Your task to perform on an android device: turn notification dots off Image 0: 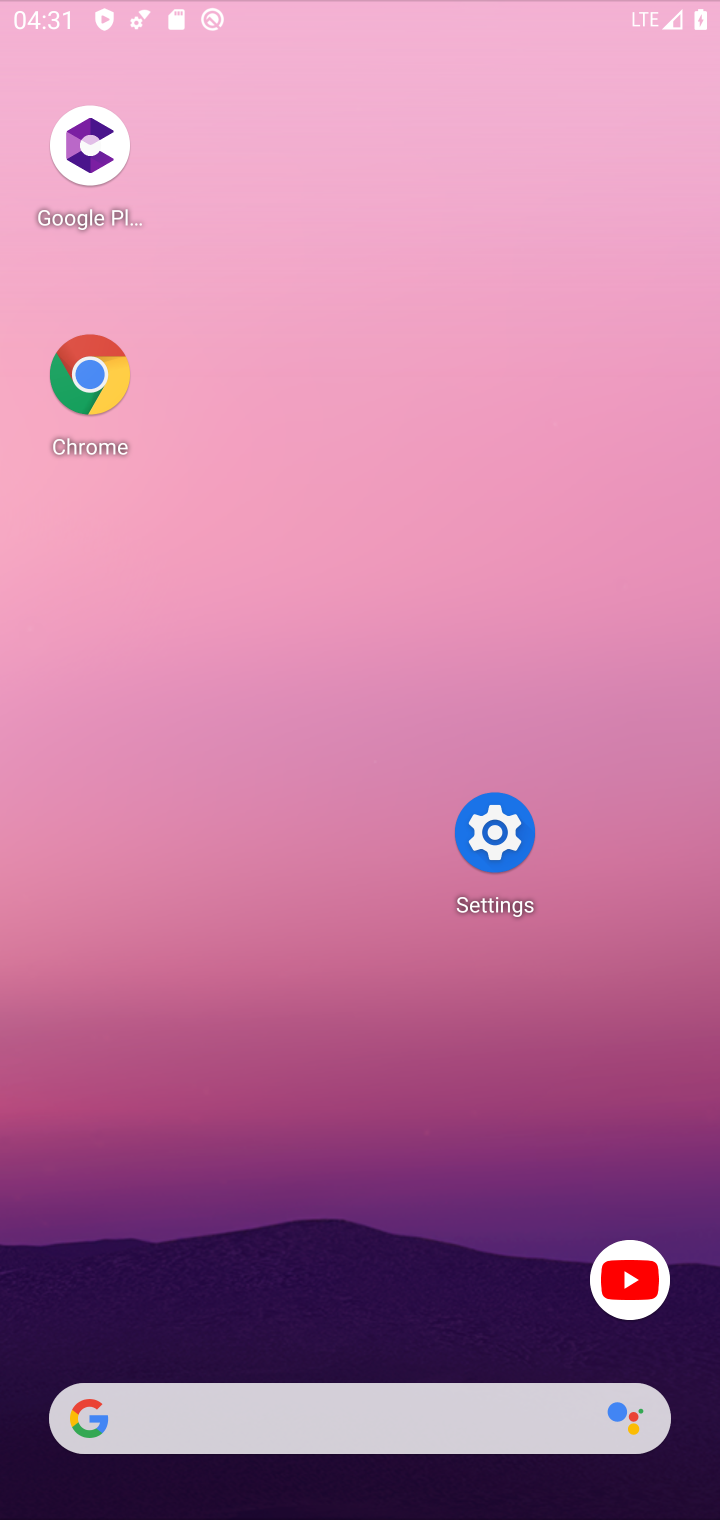
Step 0: press back button
Your task to perform on an android device: turn notification dots off Image 1: 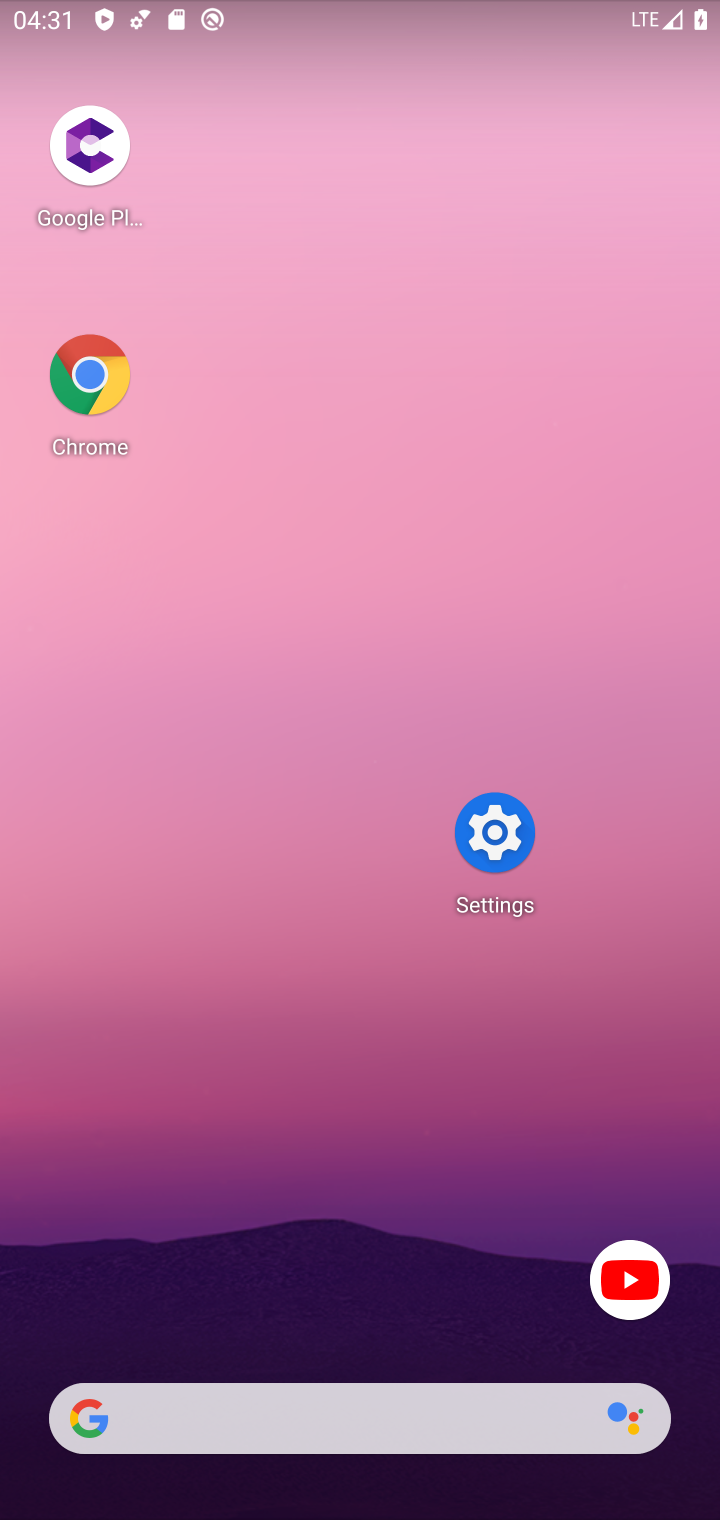
Step 1: drag from (436, 425) to (490, 566)
Your task to perform on an android device: turn notification dots off Image 2: 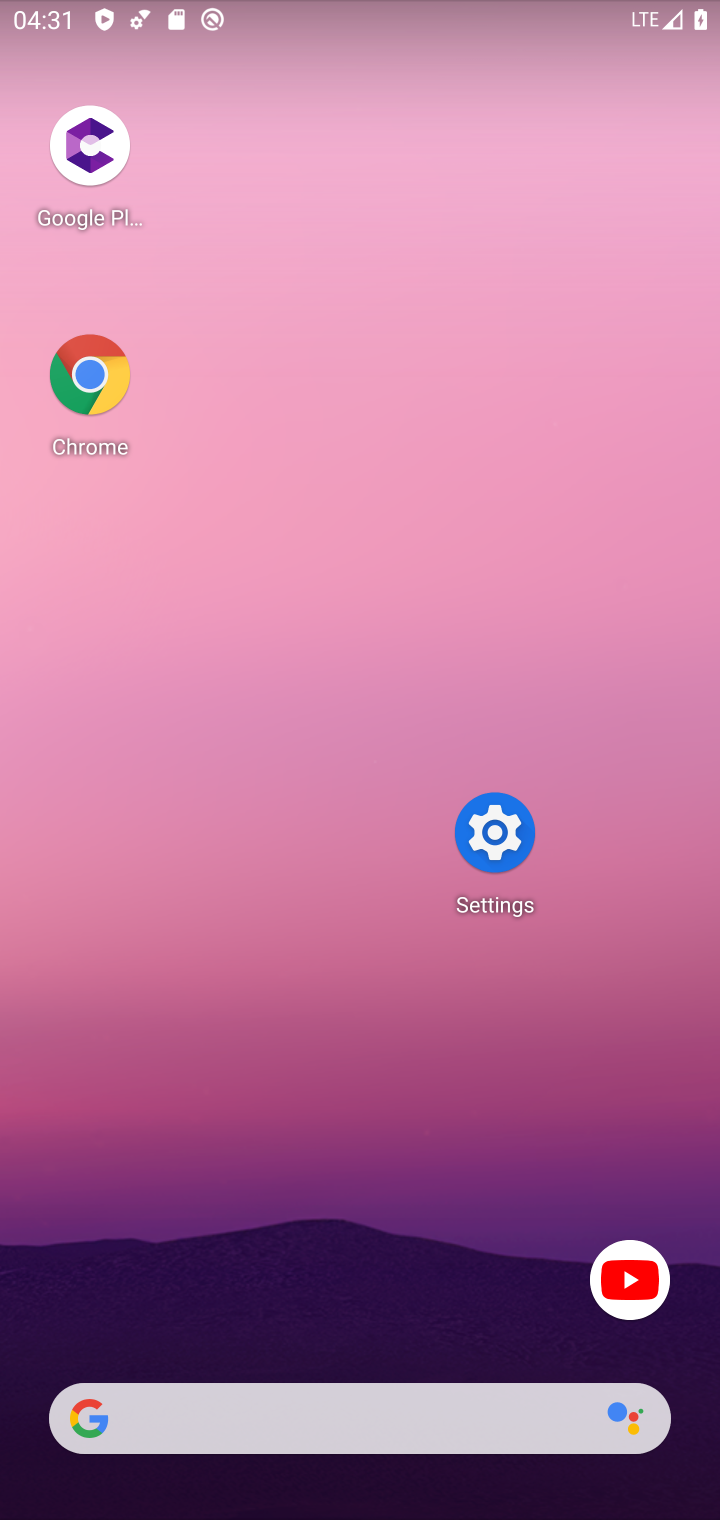
Step 2: drag from (460, 1025) to (428, 438)
Your task to perform on an android device: turn notification dots off Image 3: 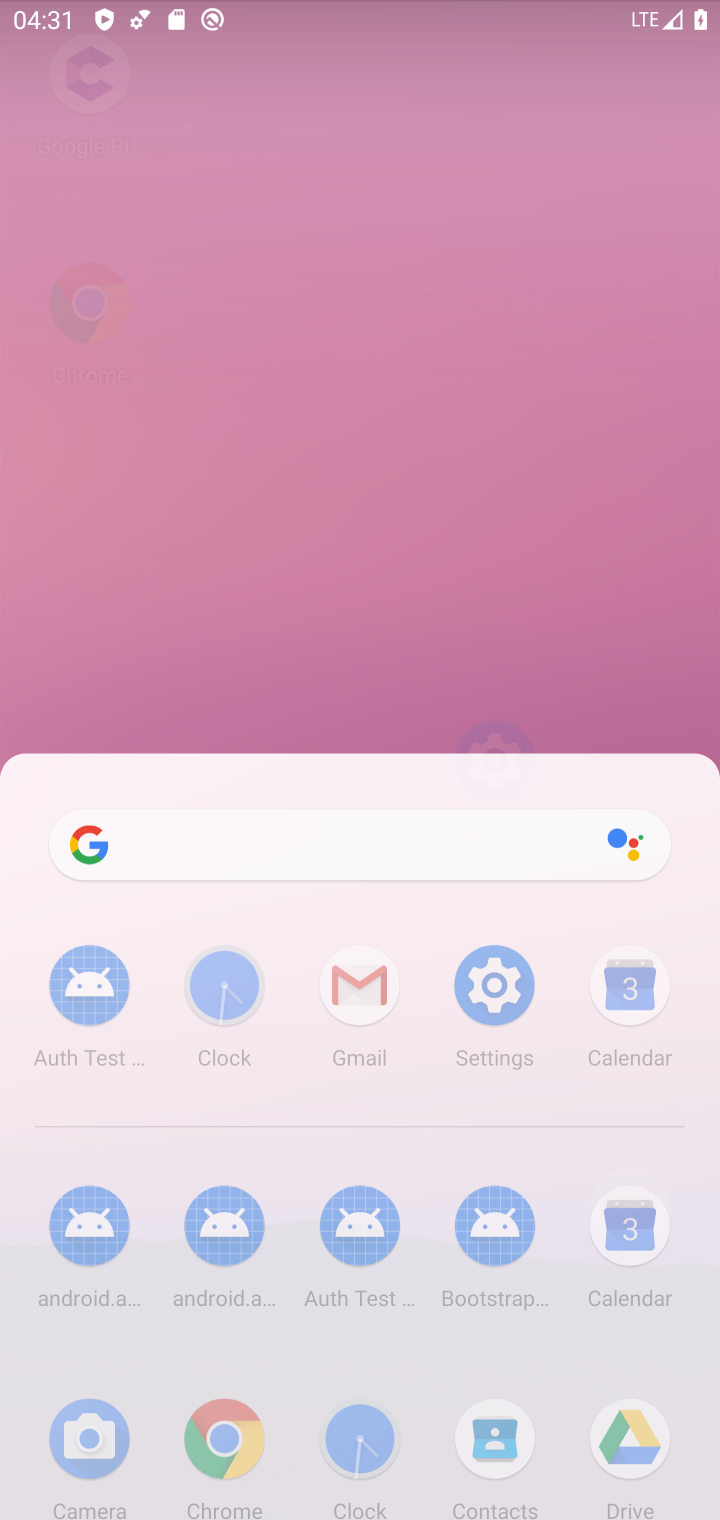
Step 3: drag from (360, 1212) to (321, 225)
Your task to perform on an android device: turn notification dots off Image 4: 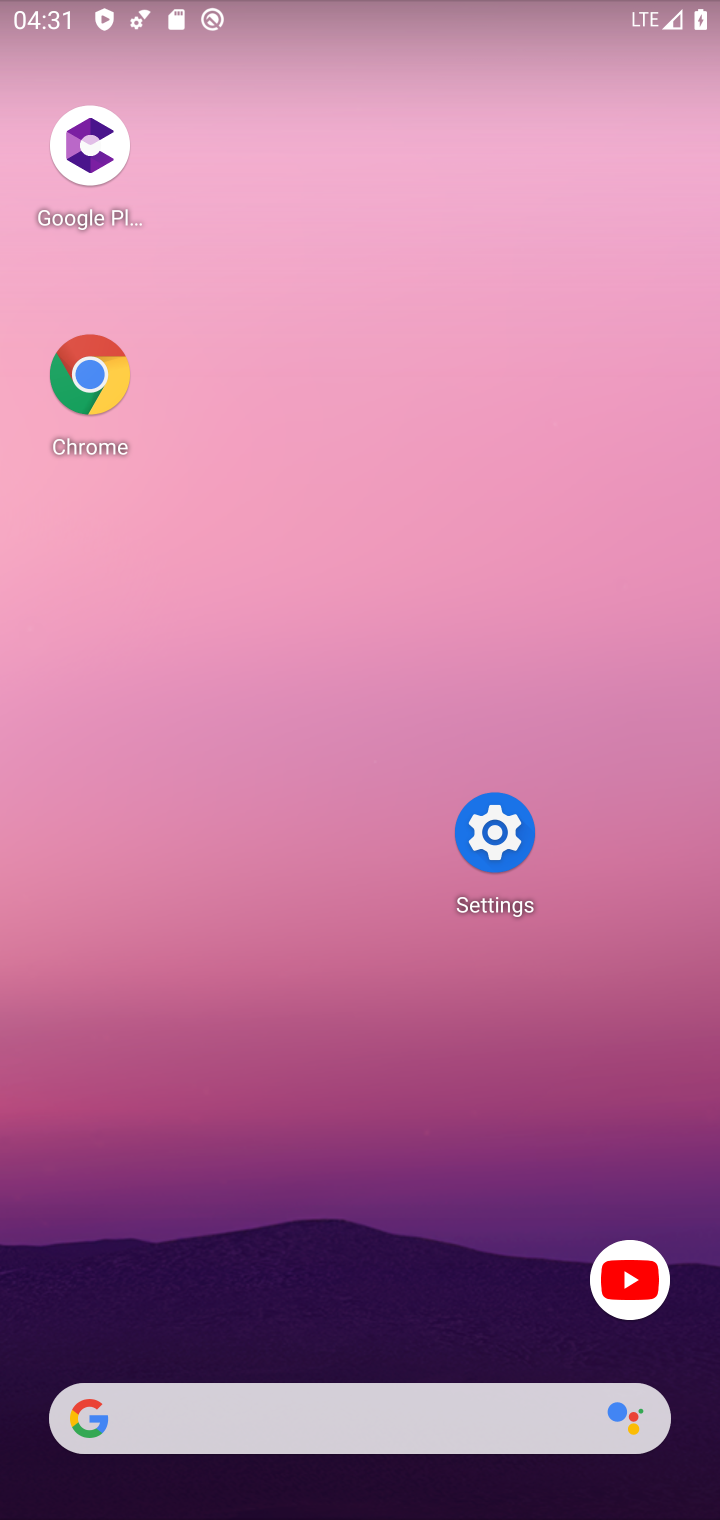
Step 4: drag from (349, 694) to (349, 222)
Your task to perform on an android device: turn notification dots off Image 5: 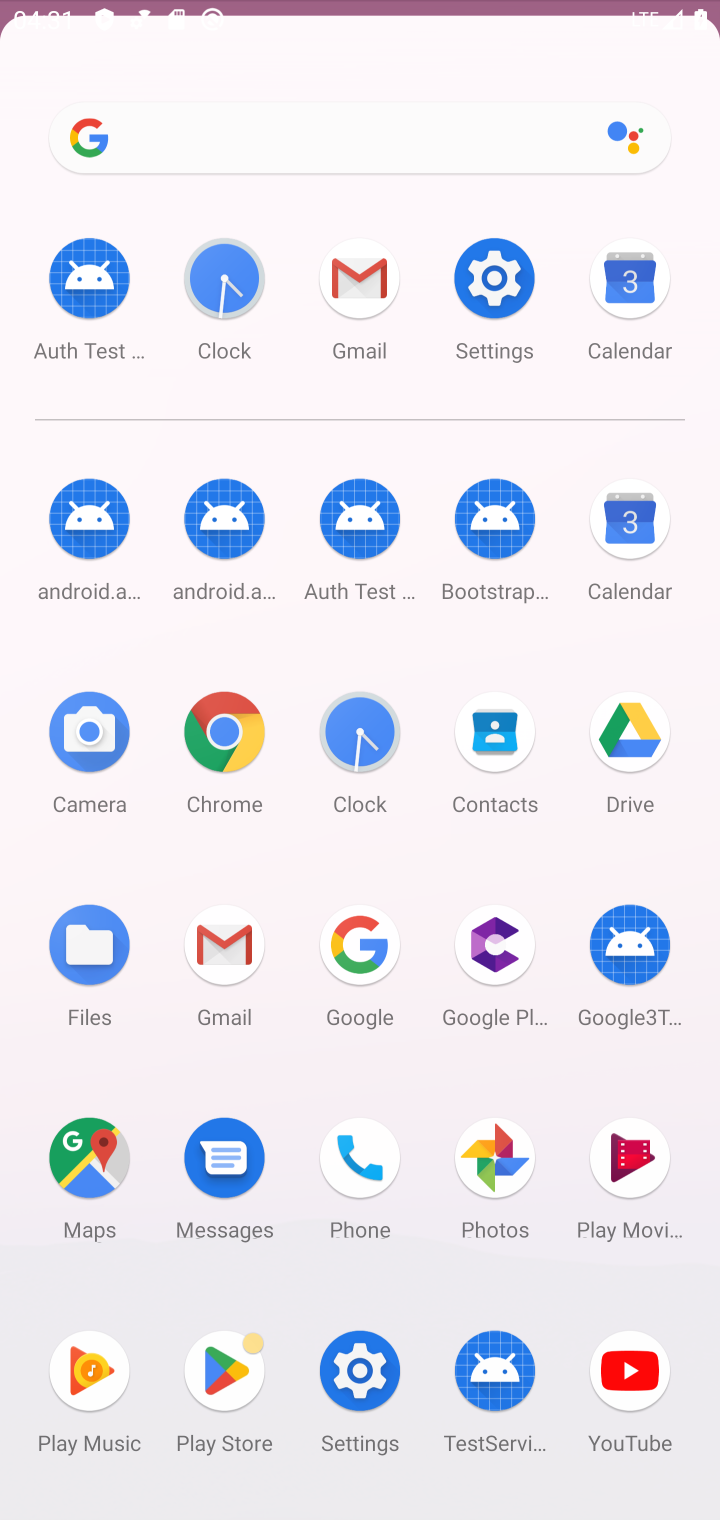
Step 5: drag from (474, 891) to (488, 42)
Your task to perform on an android device: turn notification dots off Image 6: 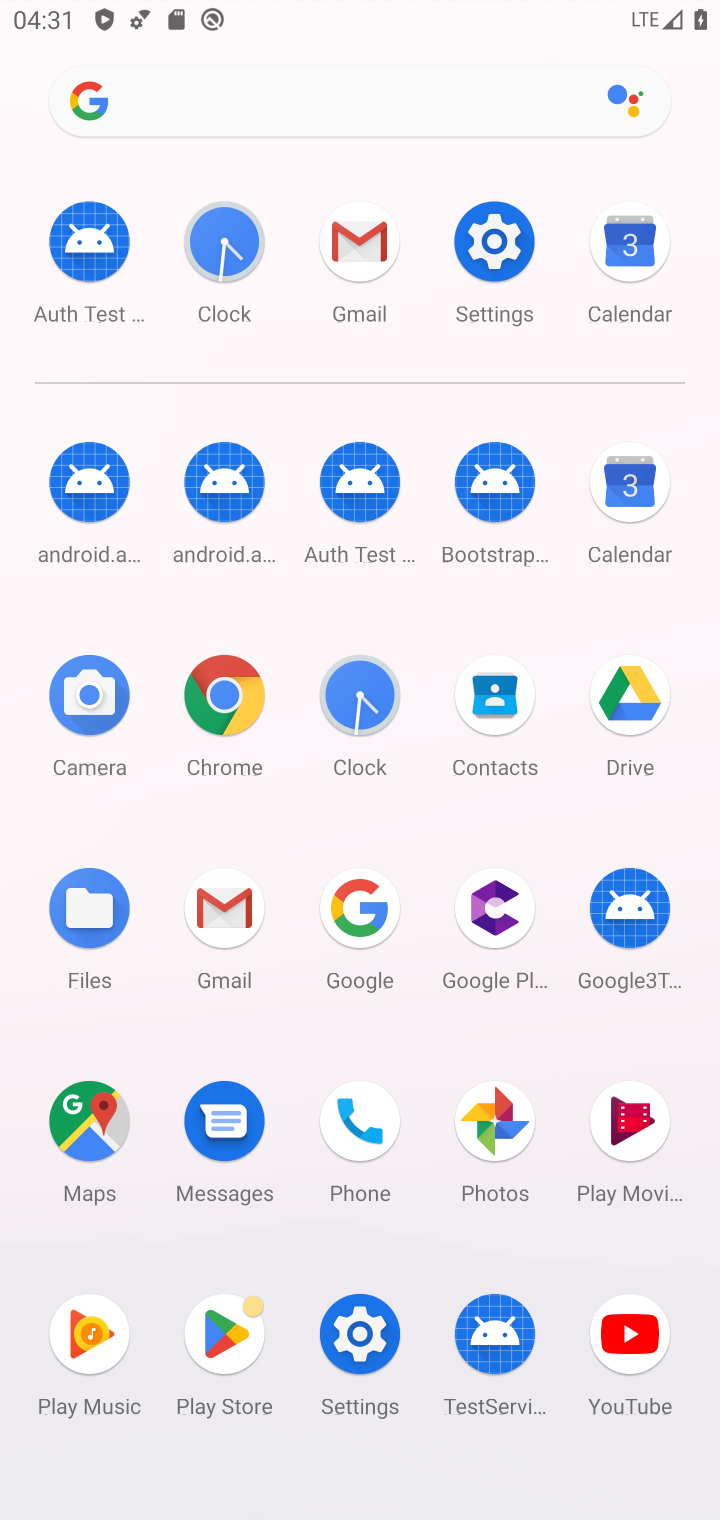
Step 6: click (342, 1316)
Your task to perform on an android device: turn notification dots off Image 7: 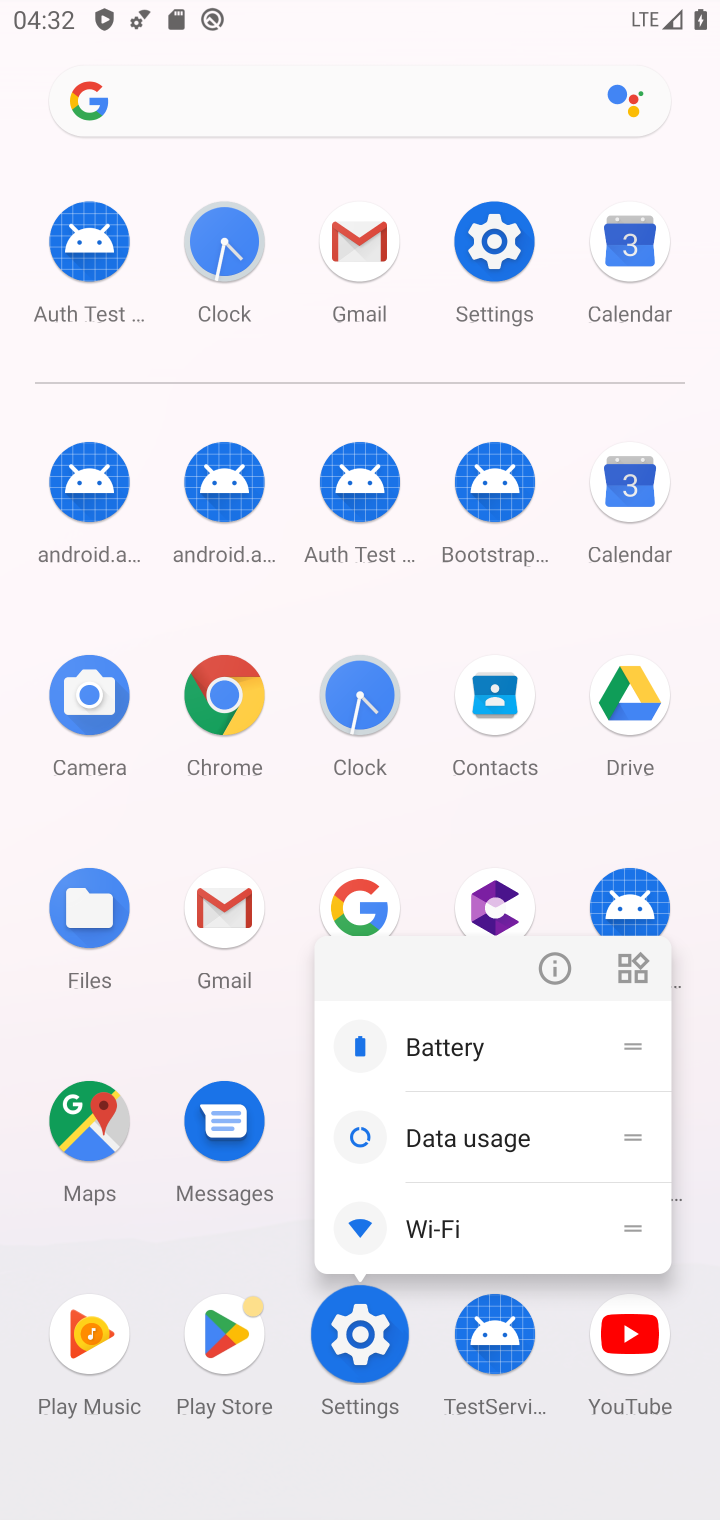
Step 7: click (351, 1316)
Your task to perform on an android device: turn notification dots off Image 8: 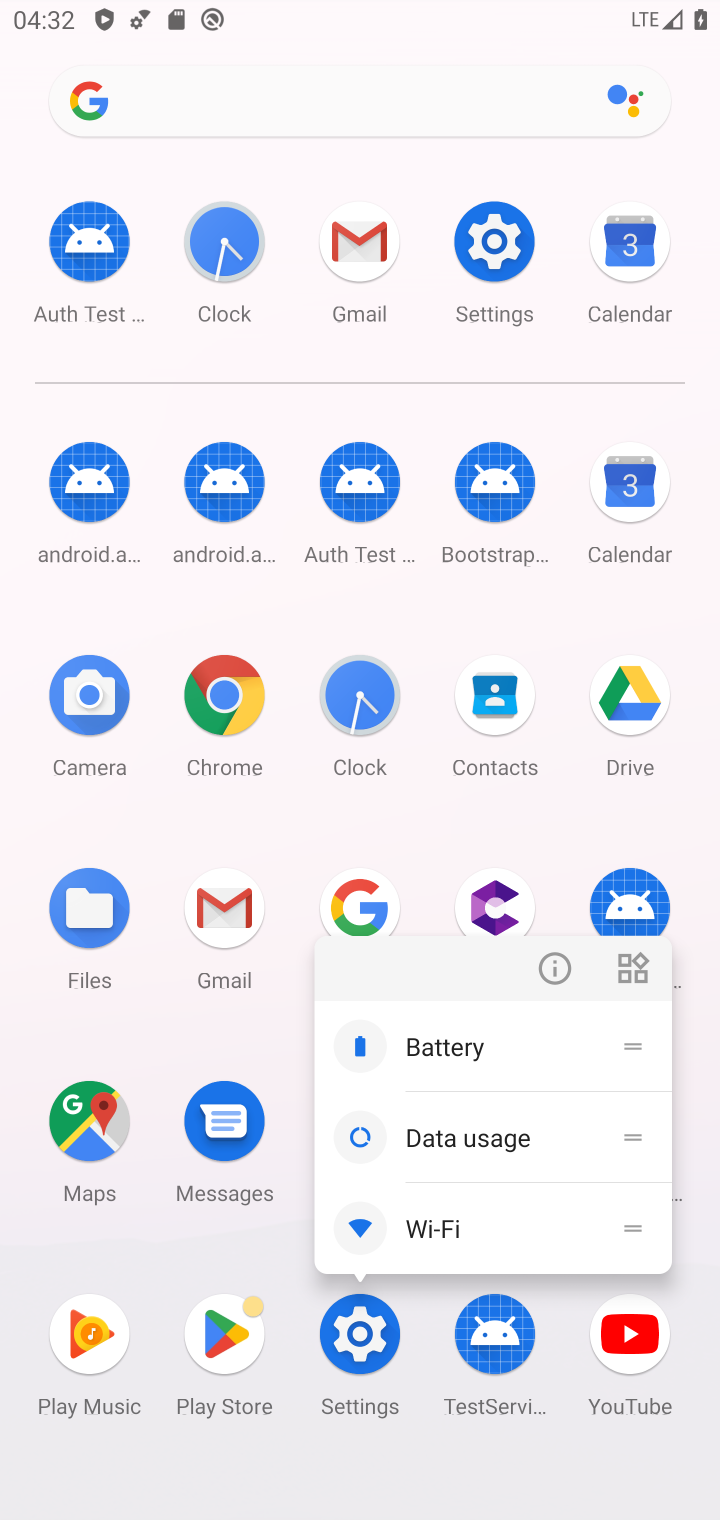
Step 8: click (361, 1335)
Your task to perform on an android device: turn notification dots off Image 9: 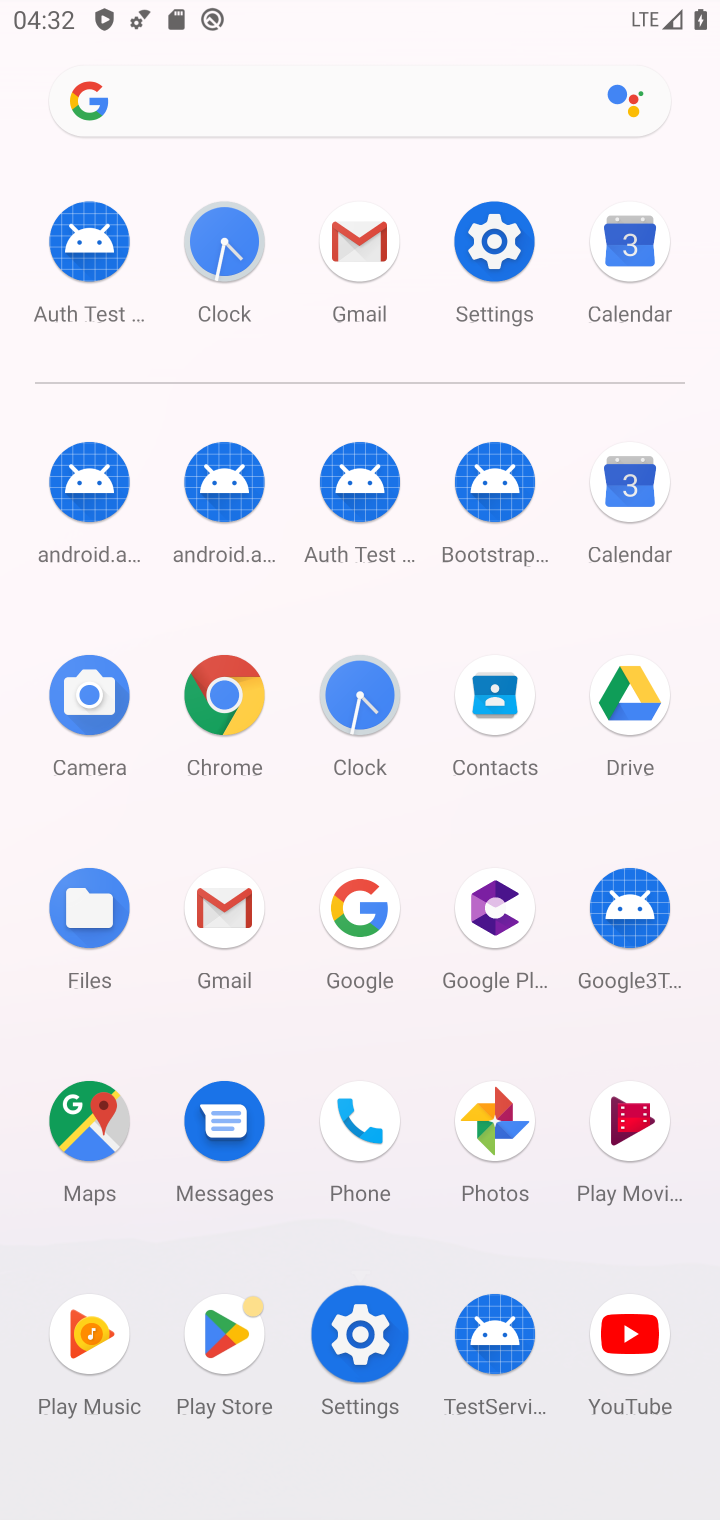
Step 9: click (361, 1335)
Your task to perform on an android device: turn notification dots off Image 10: 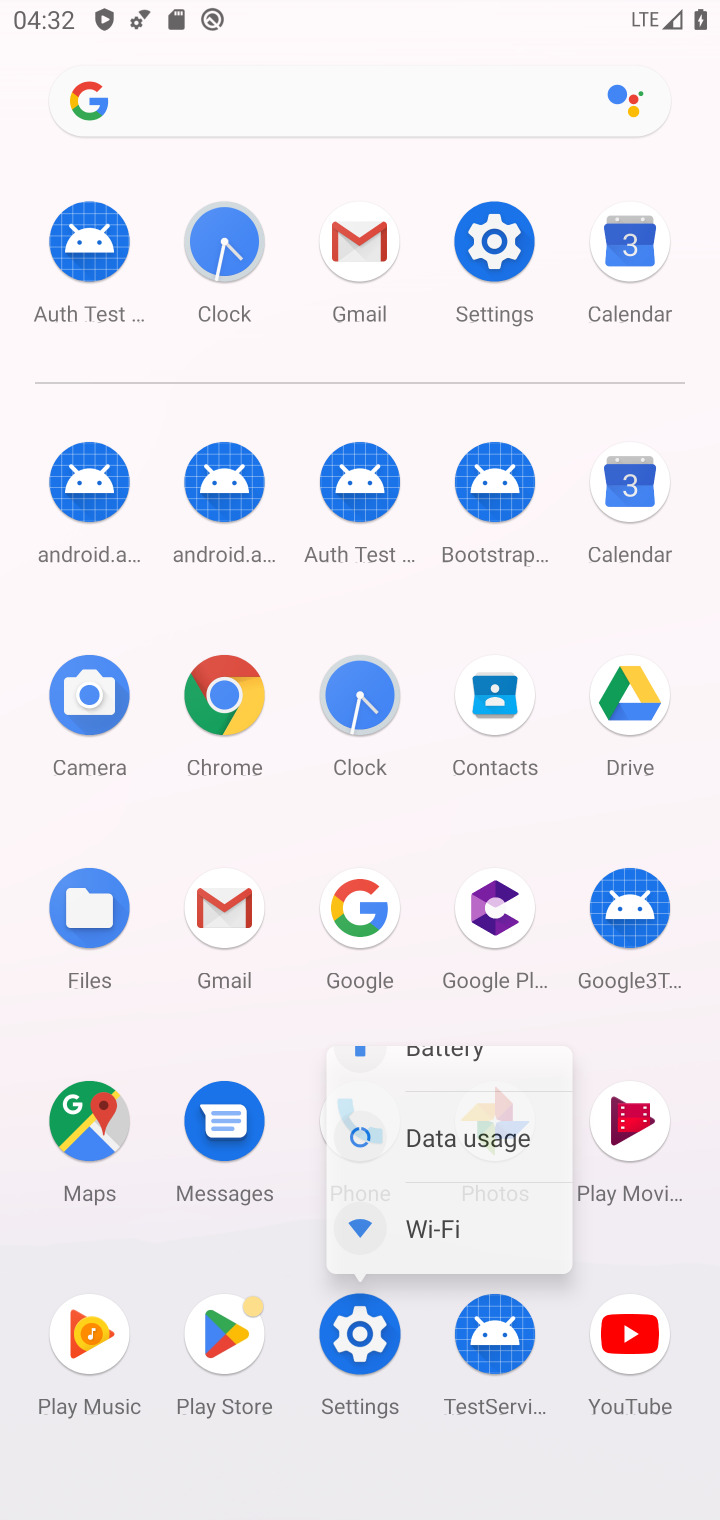
Step 10: click (354, 1302)
Your task to perform on an android device: turn notification dots off Image 11: 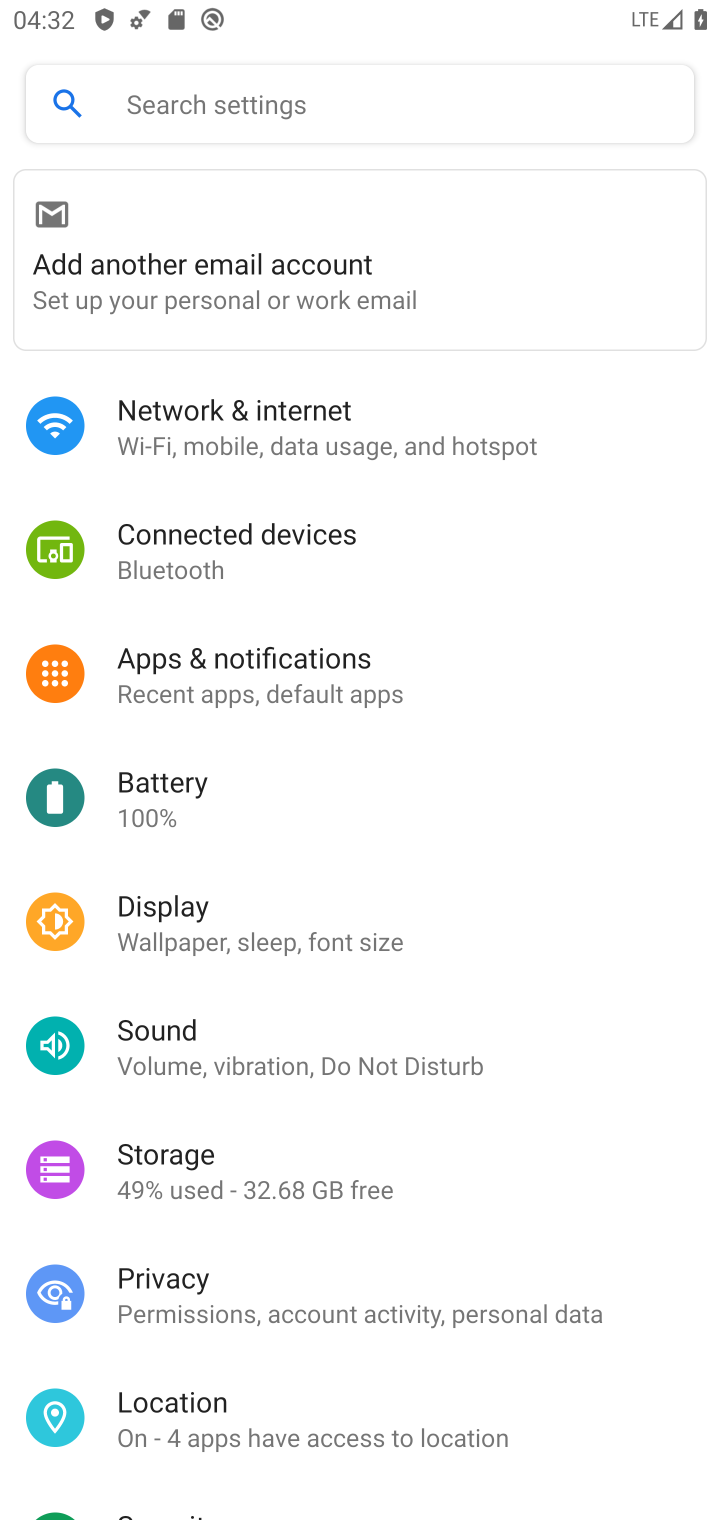
Step 11: click (209, 678)
Your task to perform on an android device: turn notification dots off Image 12: 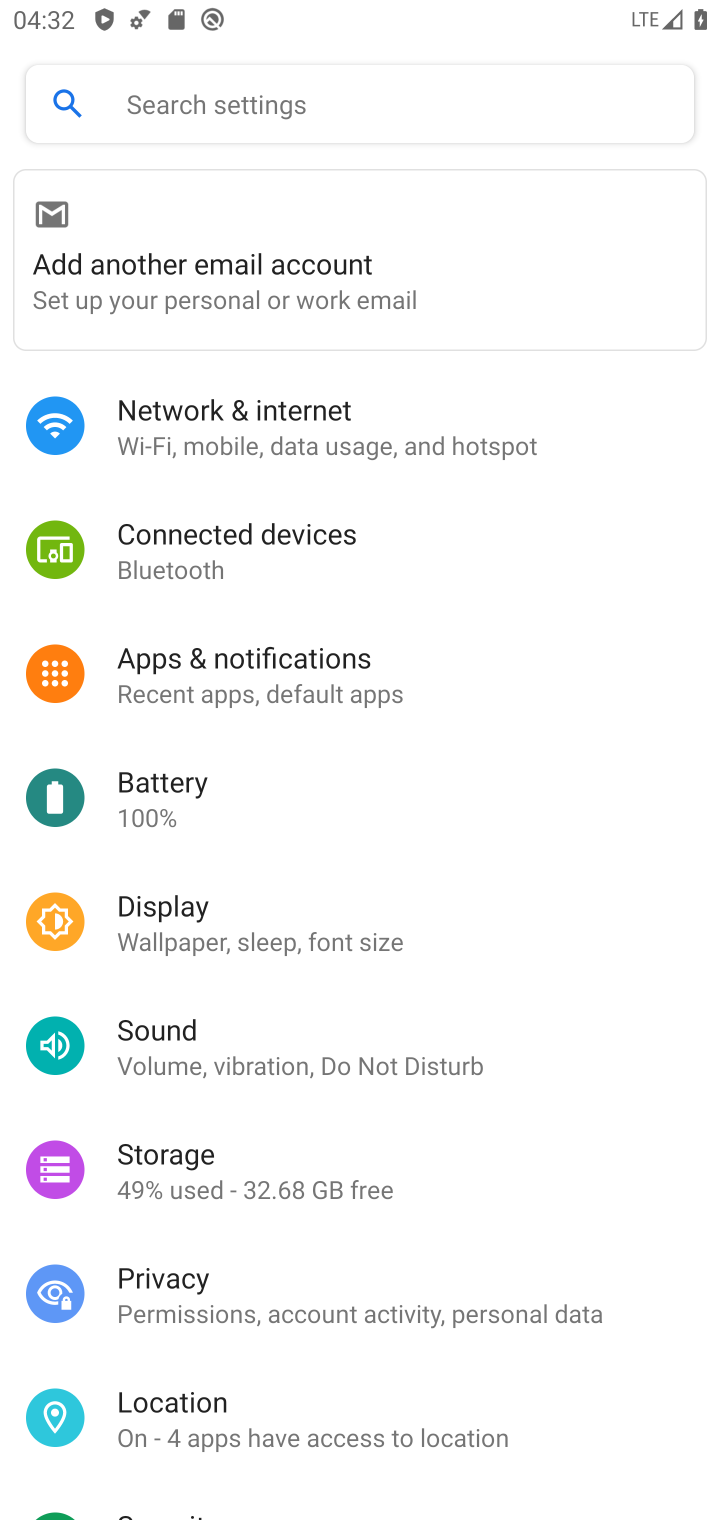
Step 12: click (242, 684)
Your task to perform on an android device: turn notification dots off Image 13: 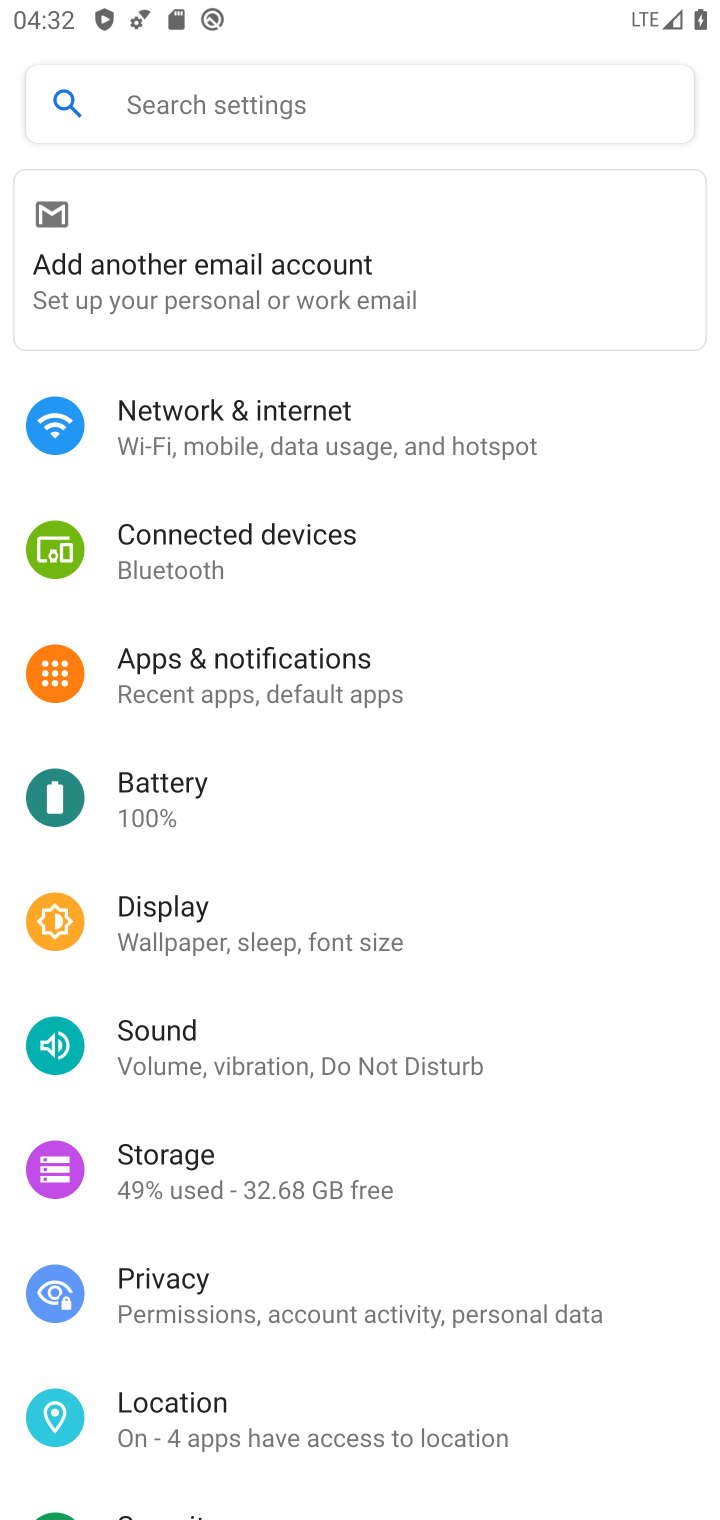
Step 13: click (244, 686)
Your task to perform on an android device: turn notification dots off Image 14: 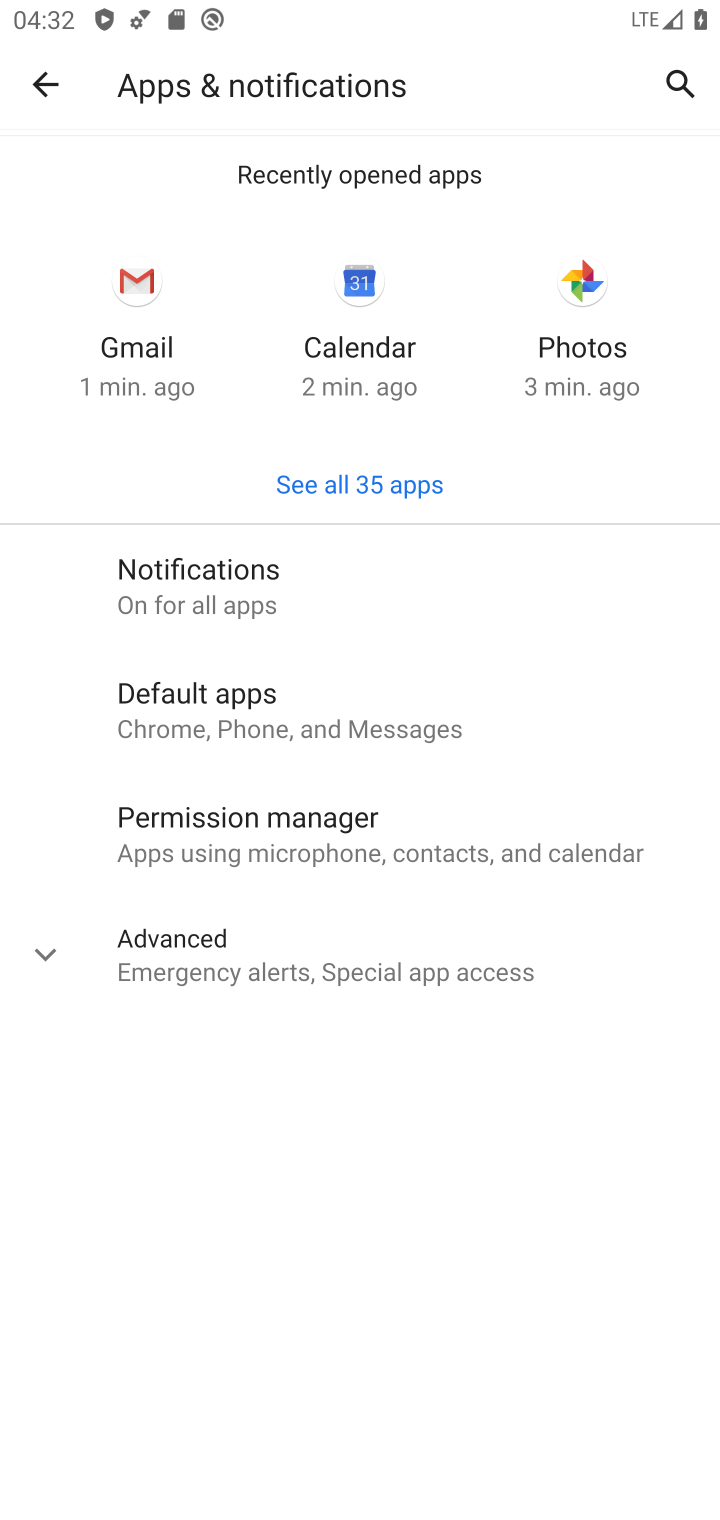
Step 14: click (200, 580)
Your task to perform on an android device: turn notification dots off Image 15: 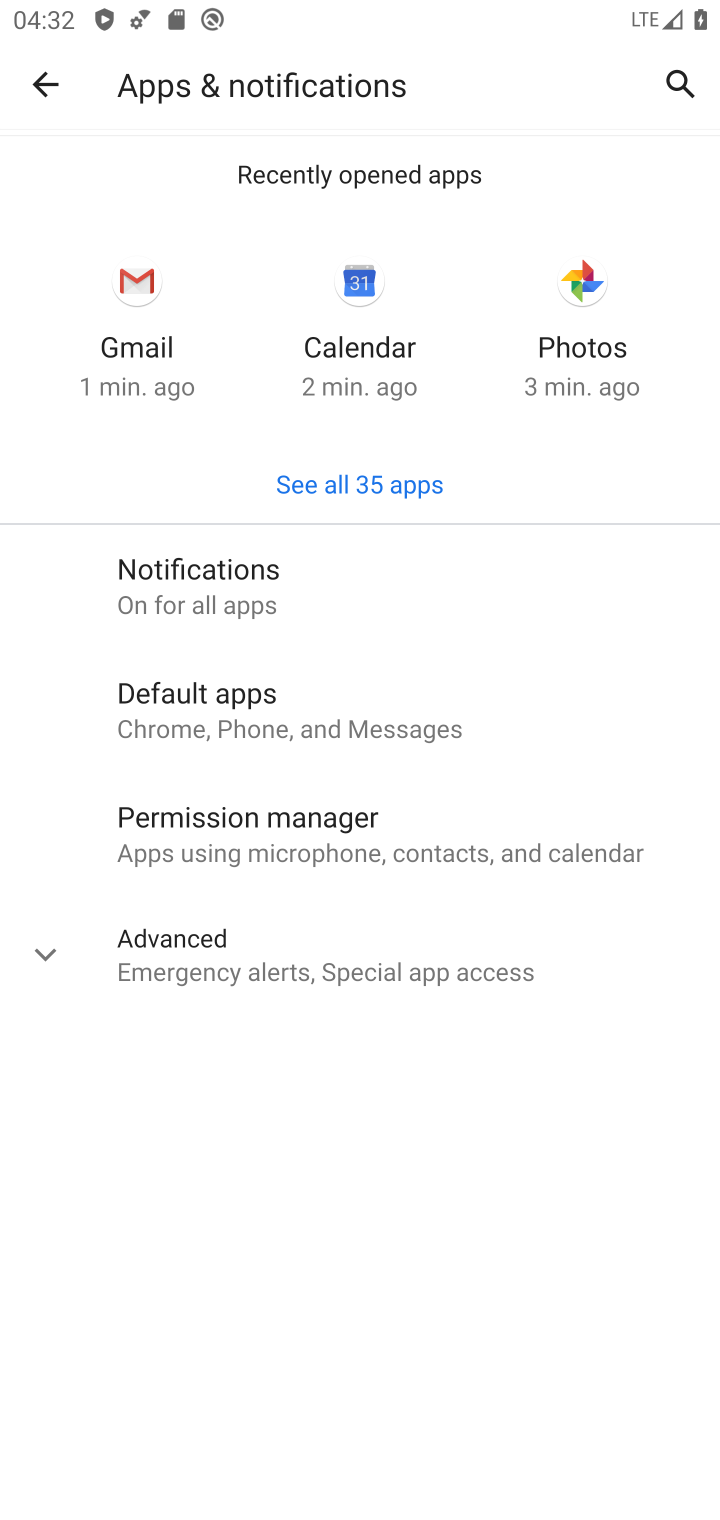
Step 15: click (230, 620)
Your task to perform on an android device: turn notification dots off Image 16: 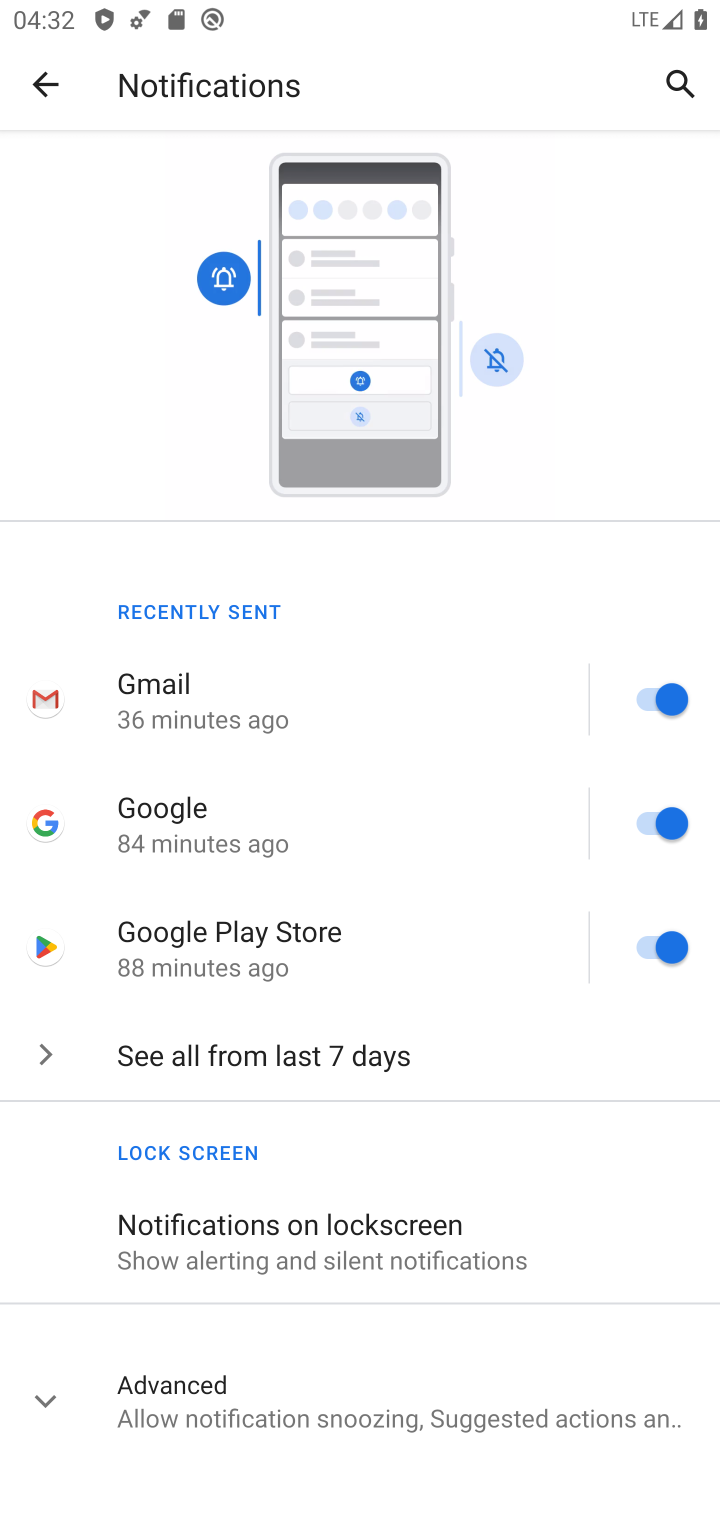
Step 16: drag from (367, 1259) to (421, 519)
Your task to perform on an android device: turn notification dots off Image 17: 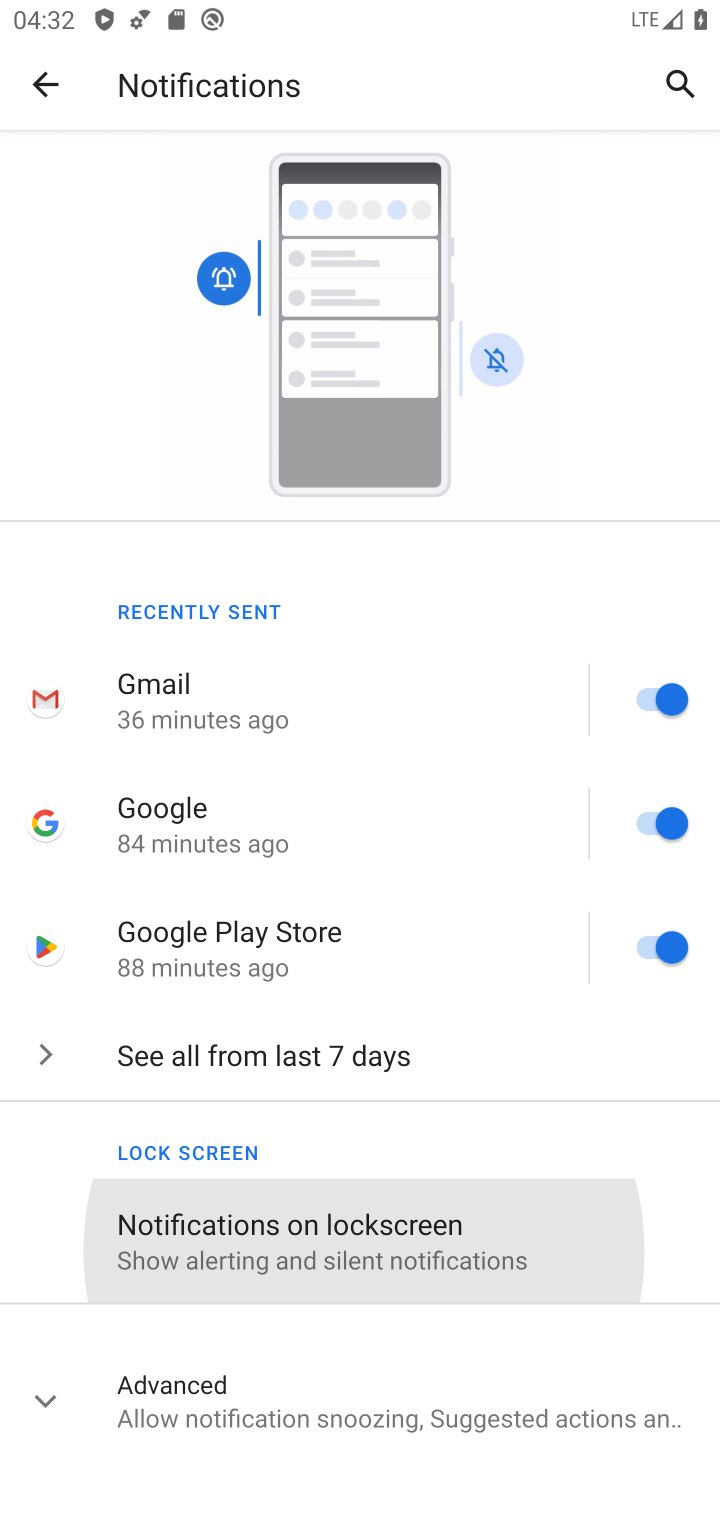
Step 17: drag from (492, 961) to (490, 560)
Your task to perform on an android device: turn notification dots off Image 18: 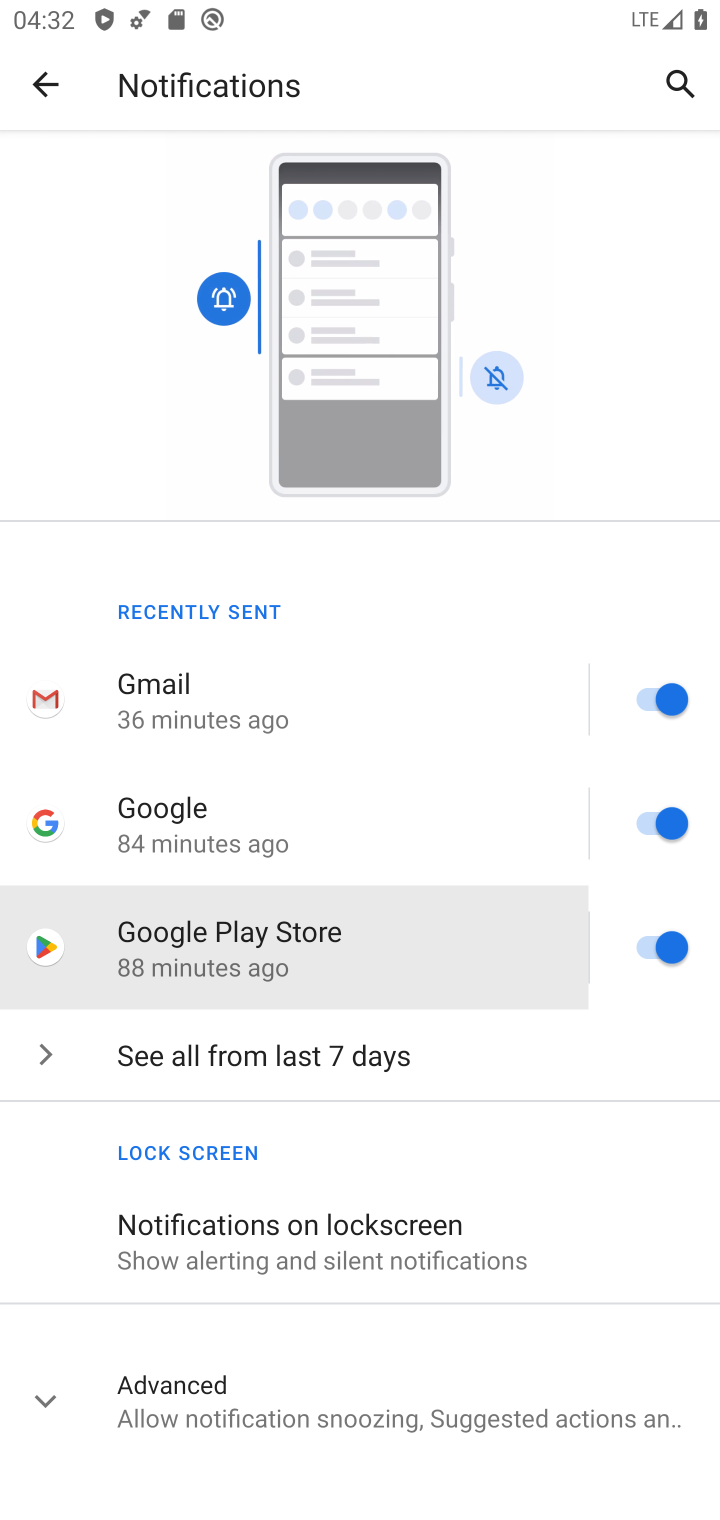
Step 18: drag from (459, 932) to (459, 533)
Your task to perform on an android device: turn notification dots off Image 19: 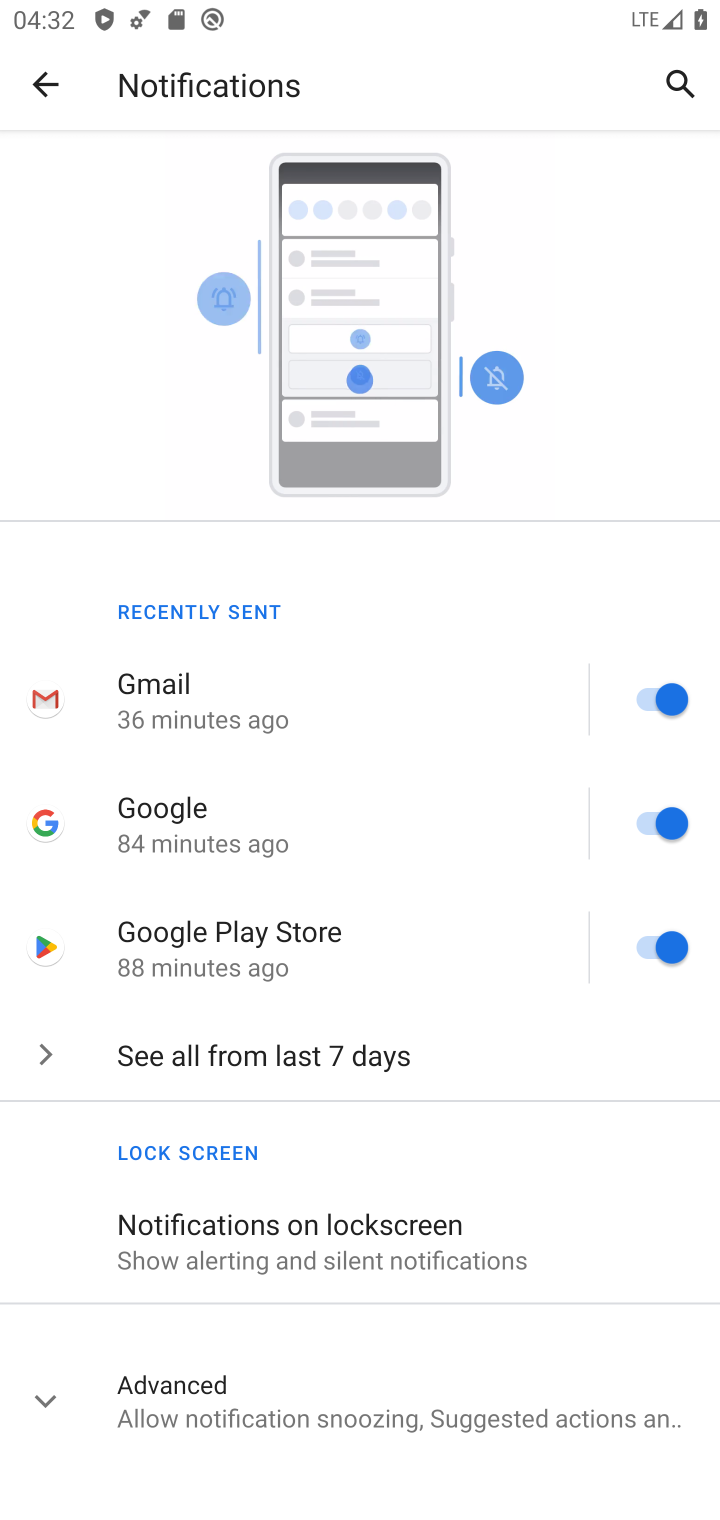
Step 19: click (212, 1402)
Your task to perform on an android device: turn notification dots off Image 20: 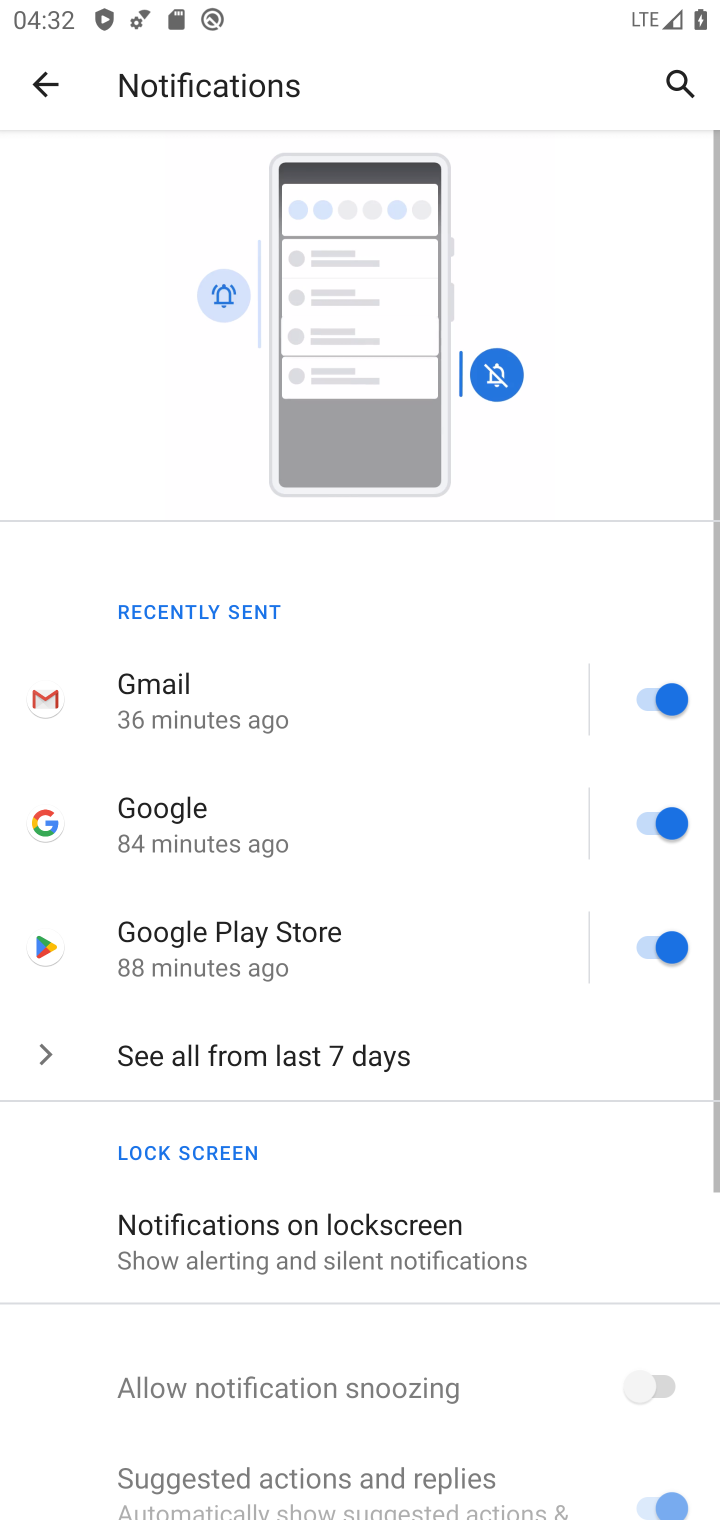
Step 20: drag from (352, 1227) to (436, 728)
Your task to perform on an android device: turn notification dots off Image 21: 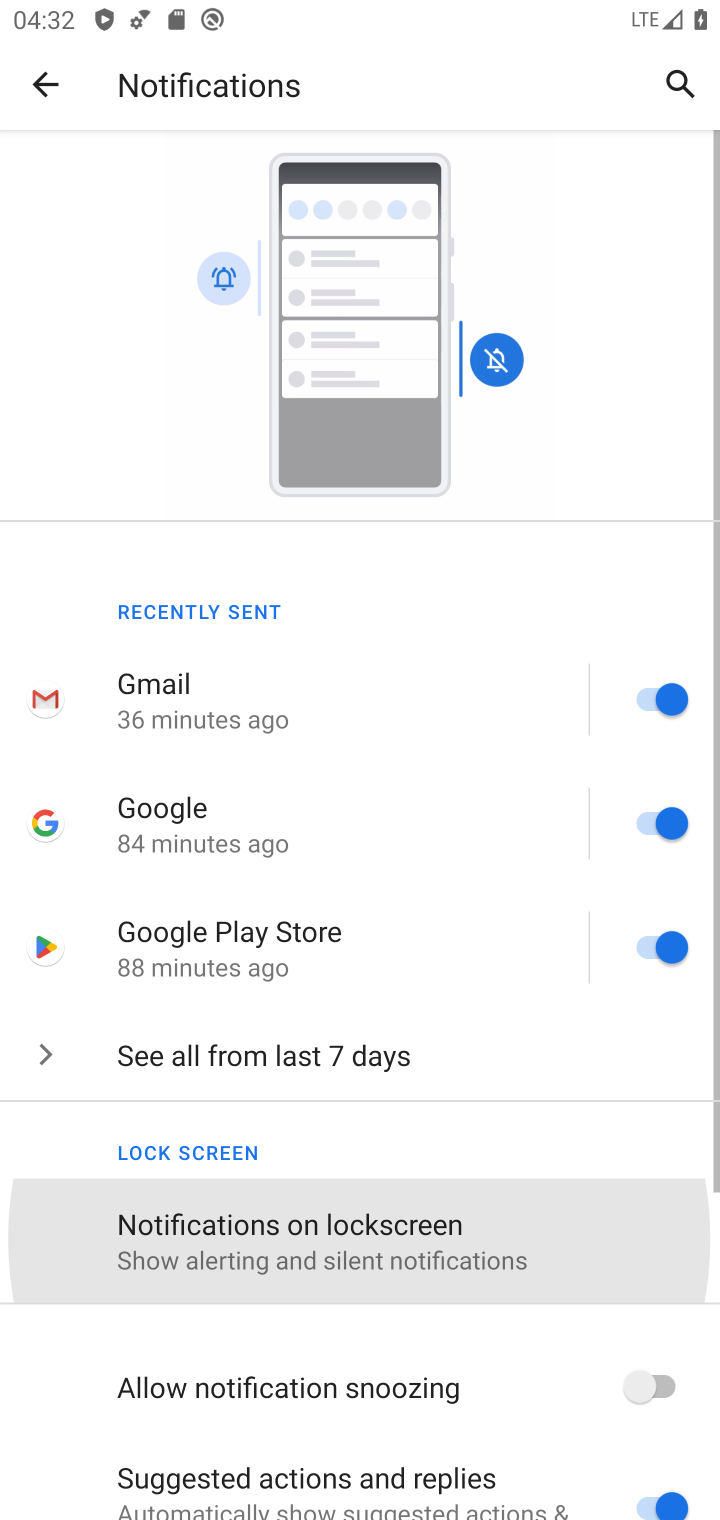
Step 21: click (423, 857)
Your task to perform on an android device: turn notification dots off Image 22: 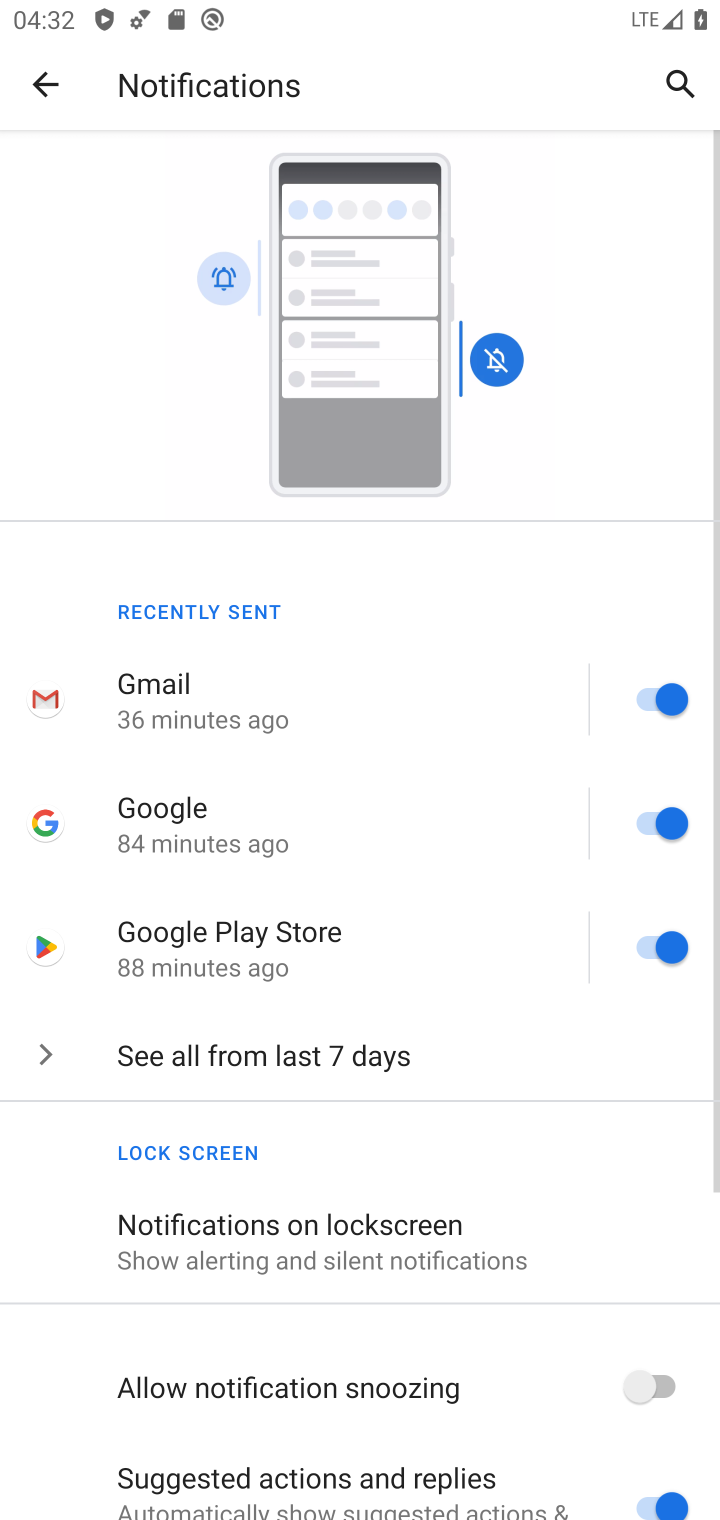
Step 22: drag from (494, 672) to (387, 618)
Your task to perform on an android device: turn notification dots off Image 23: 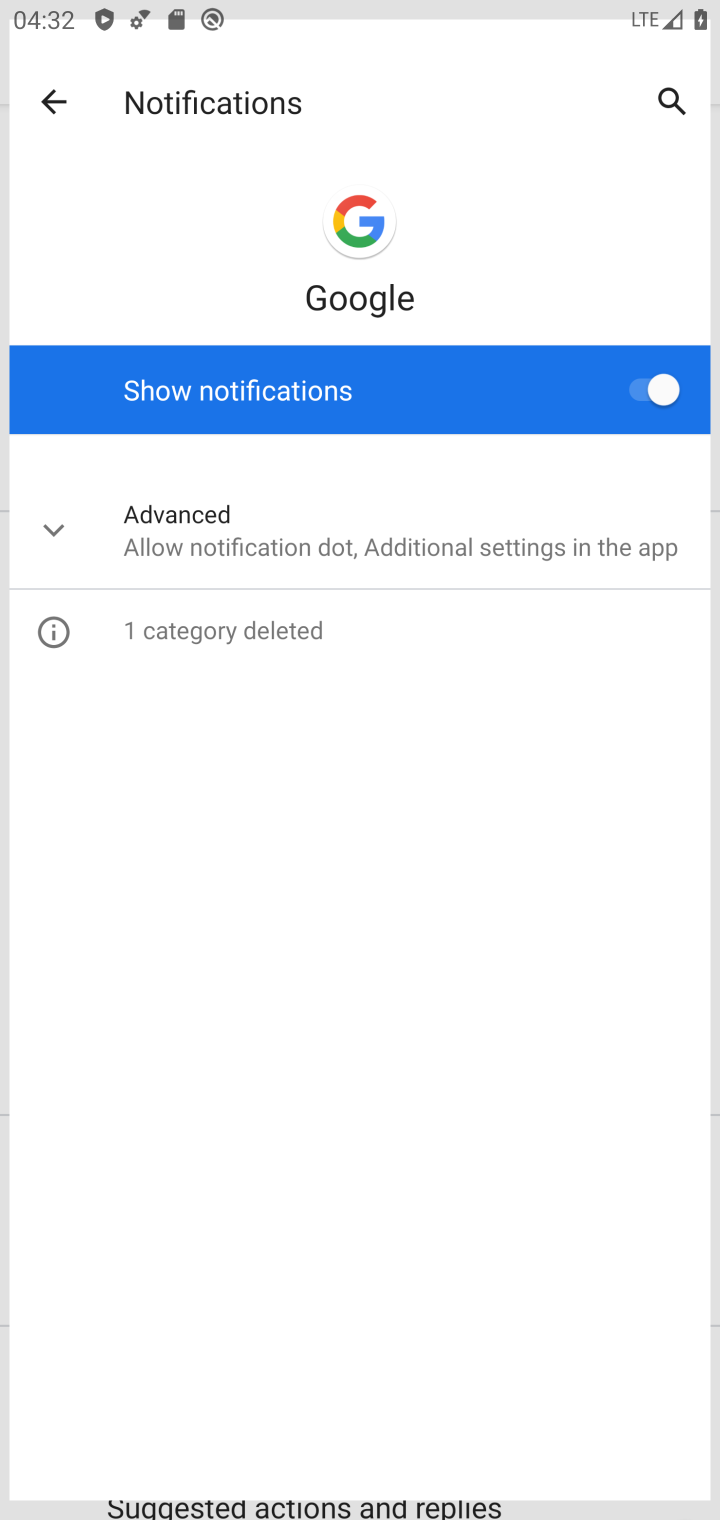
Step 23: drag from (412, 1095) to (356, 439)
Your task to perform on an android device: turn notification dots off Image 24: 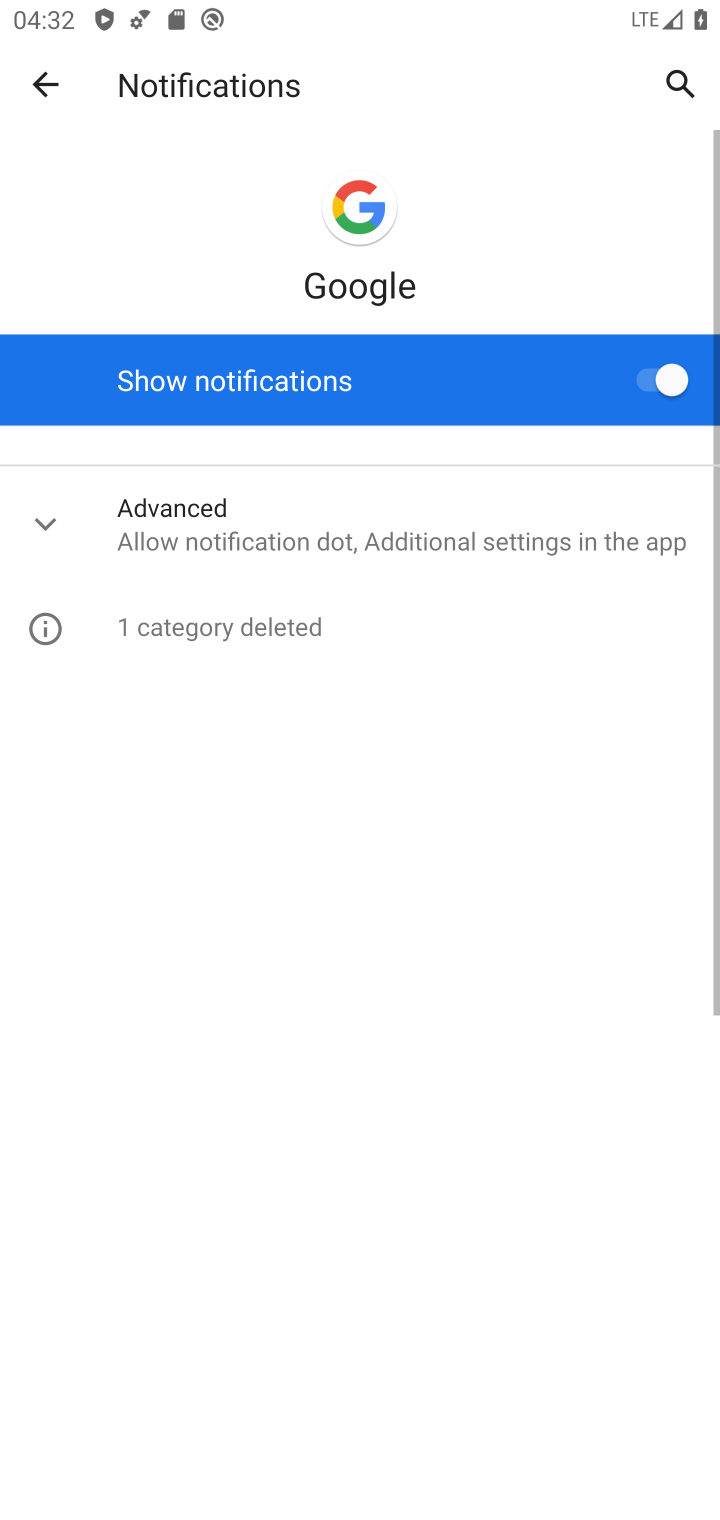
Step 24: drag from (332, 1094) to (320, 199)
Your task to perform on an android device: turn notification dots off Image 25: 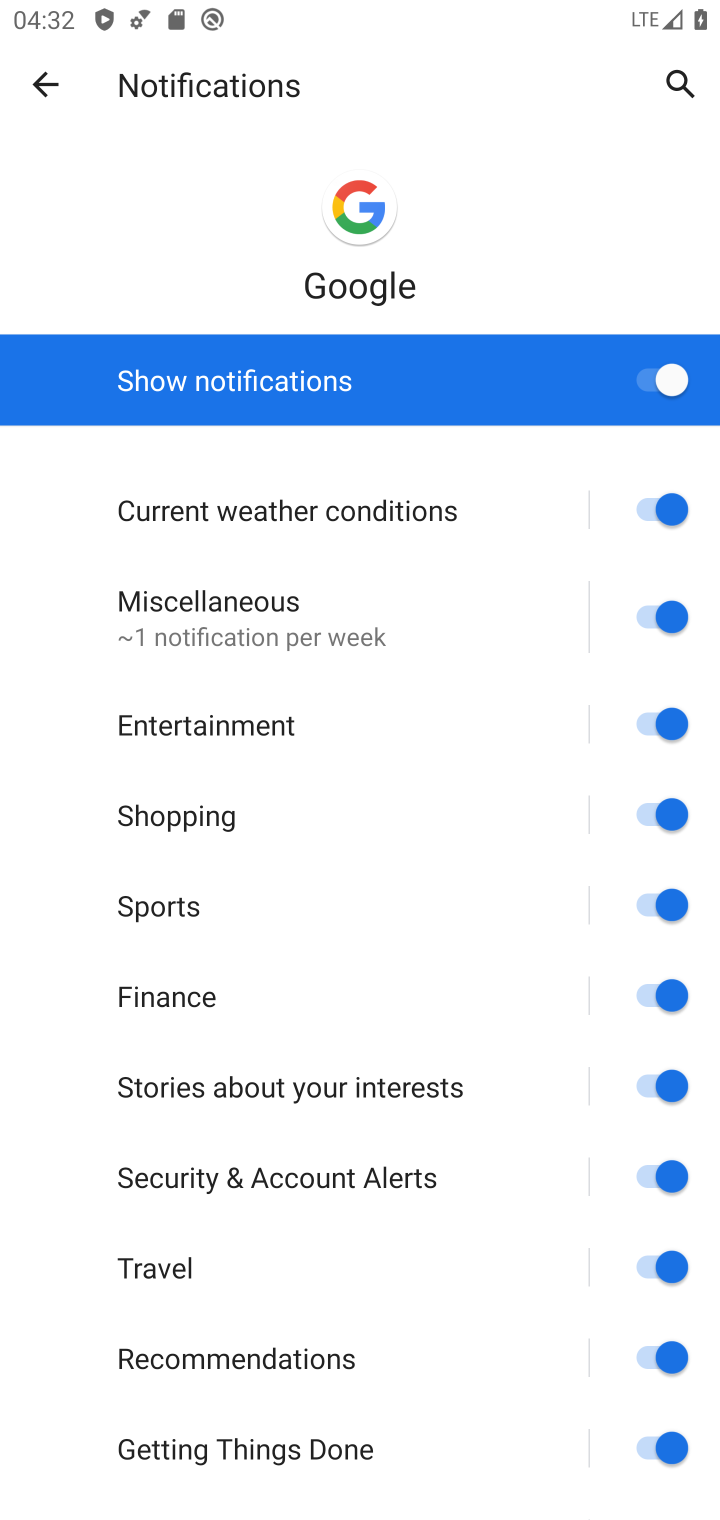
Step 25: click (38, 67)
Your task to perform on an android device: turn notification dots off Image 26: 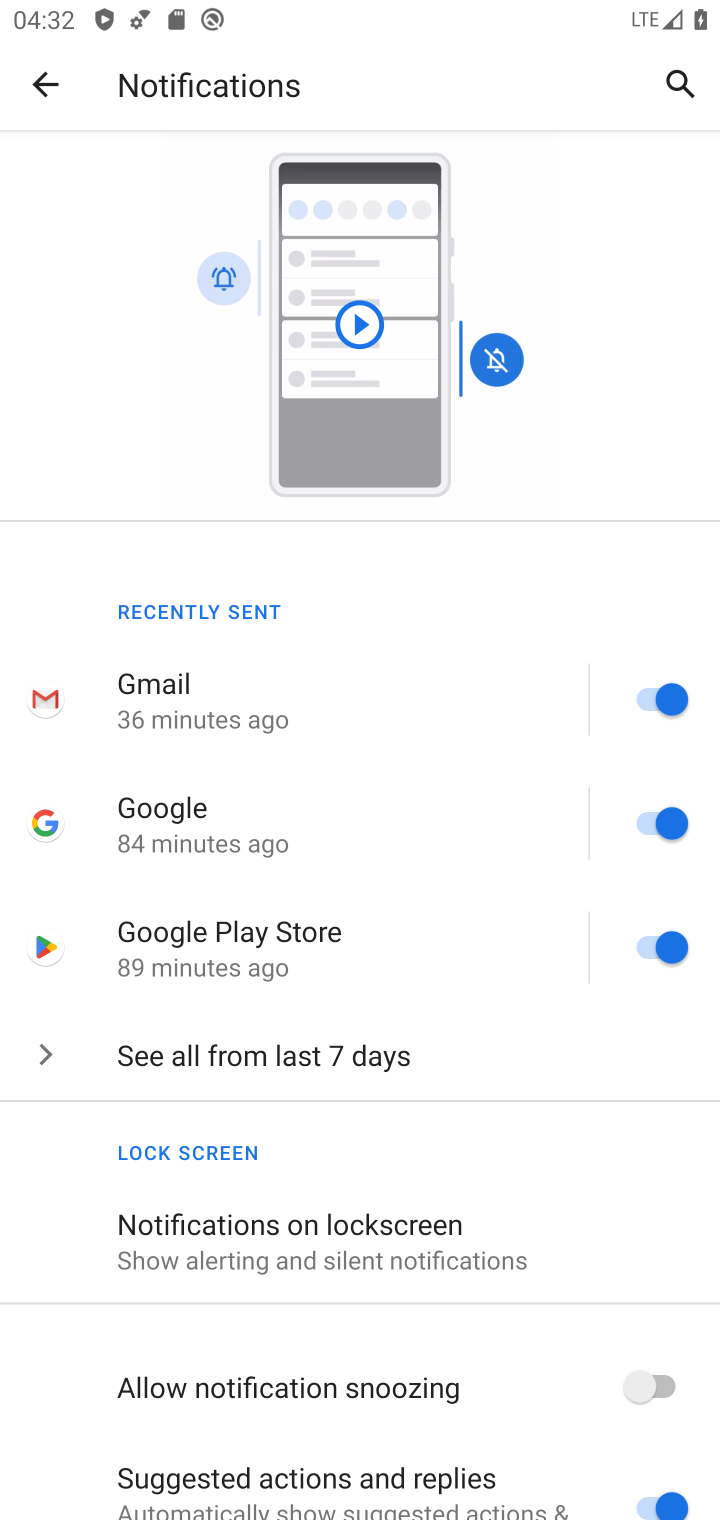
Step 26: drag from (438, 1178) to (438, 864)
Your task to perform on an android device: turn notification dots off Image 27: 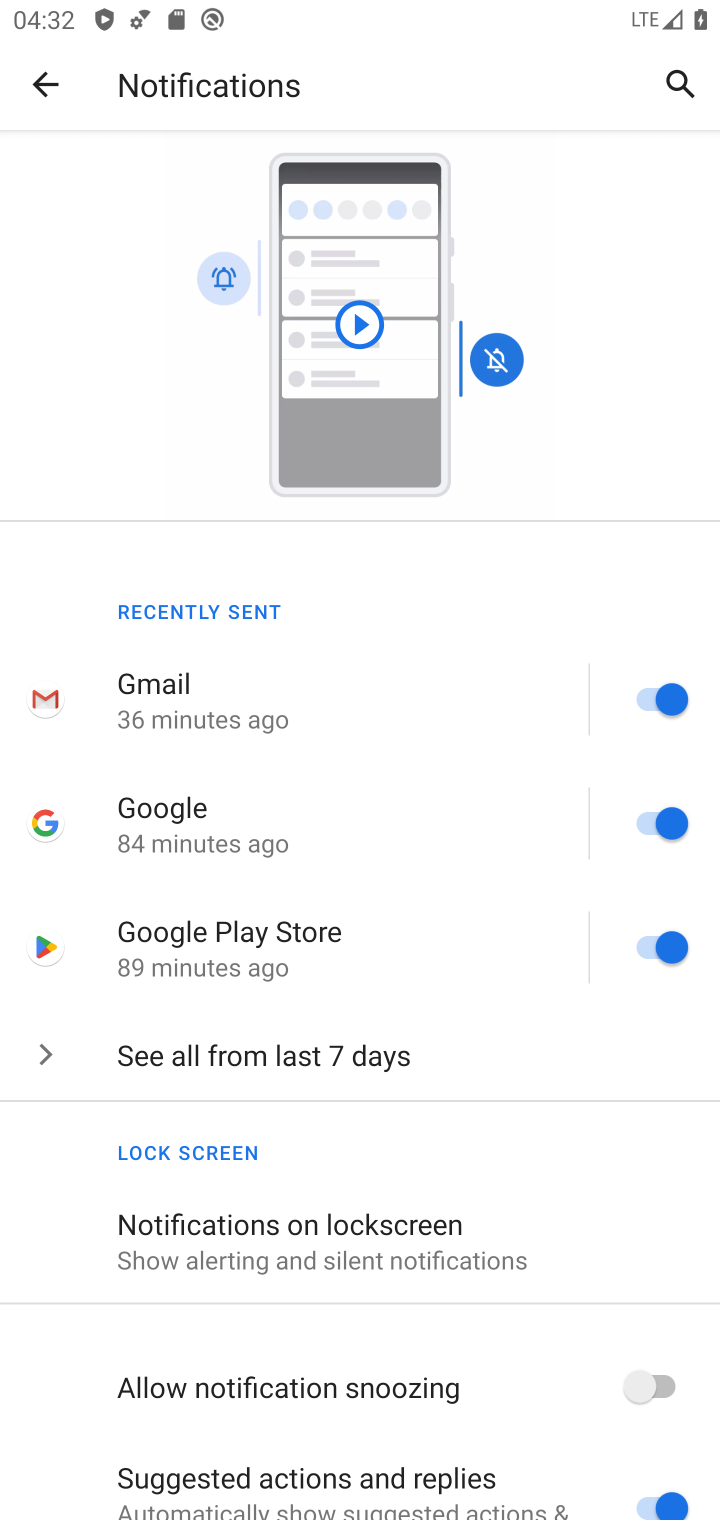
Step 27: drag from (382, 985) to (382, 635)
Your task to perform on an android device: turn notification dots off Image 28: 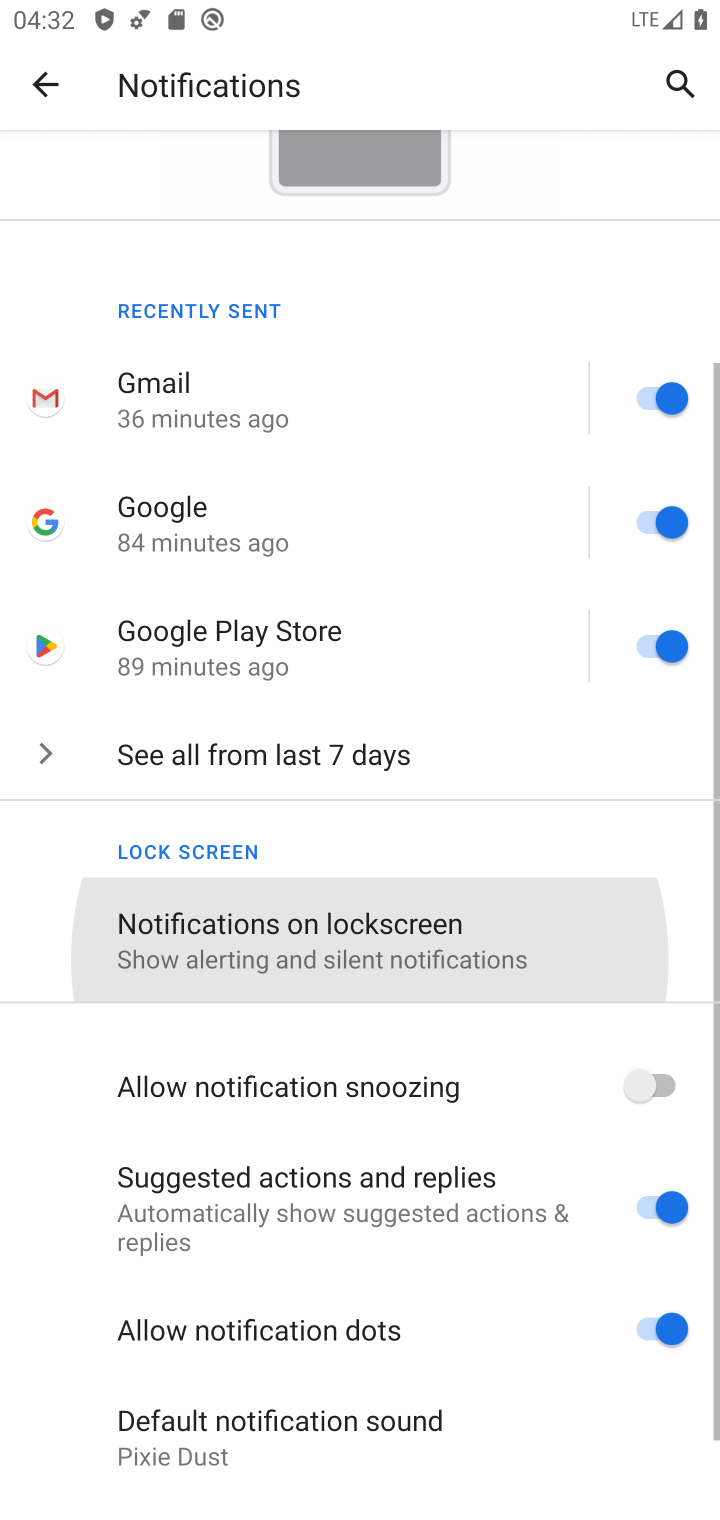
Step 28: drag from (409, 1017) to (483, 554)
Your task to perform on an android device: turn notification dots off Image 29: 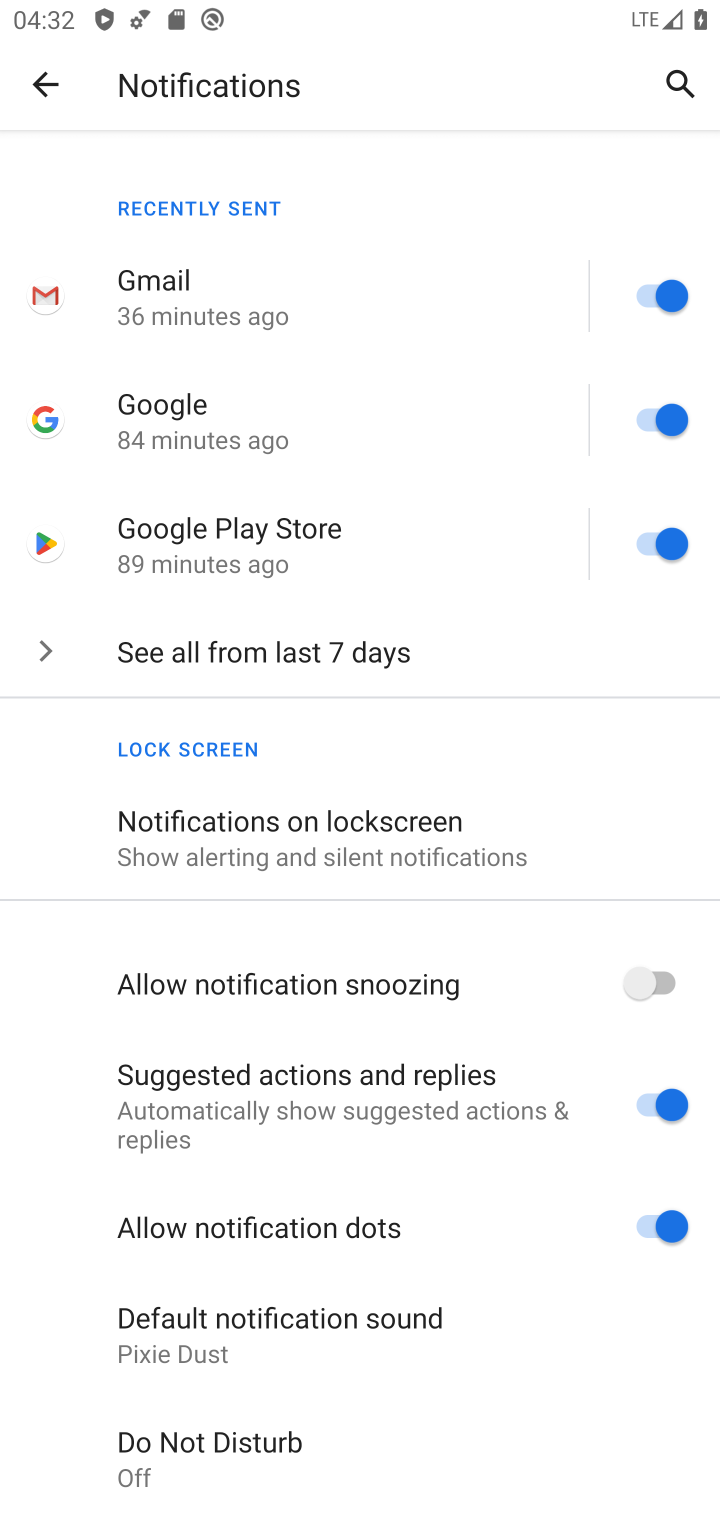
Step 29: click (668, 1203)
Your task to perform on an android device: turn notification dots off Image 30: 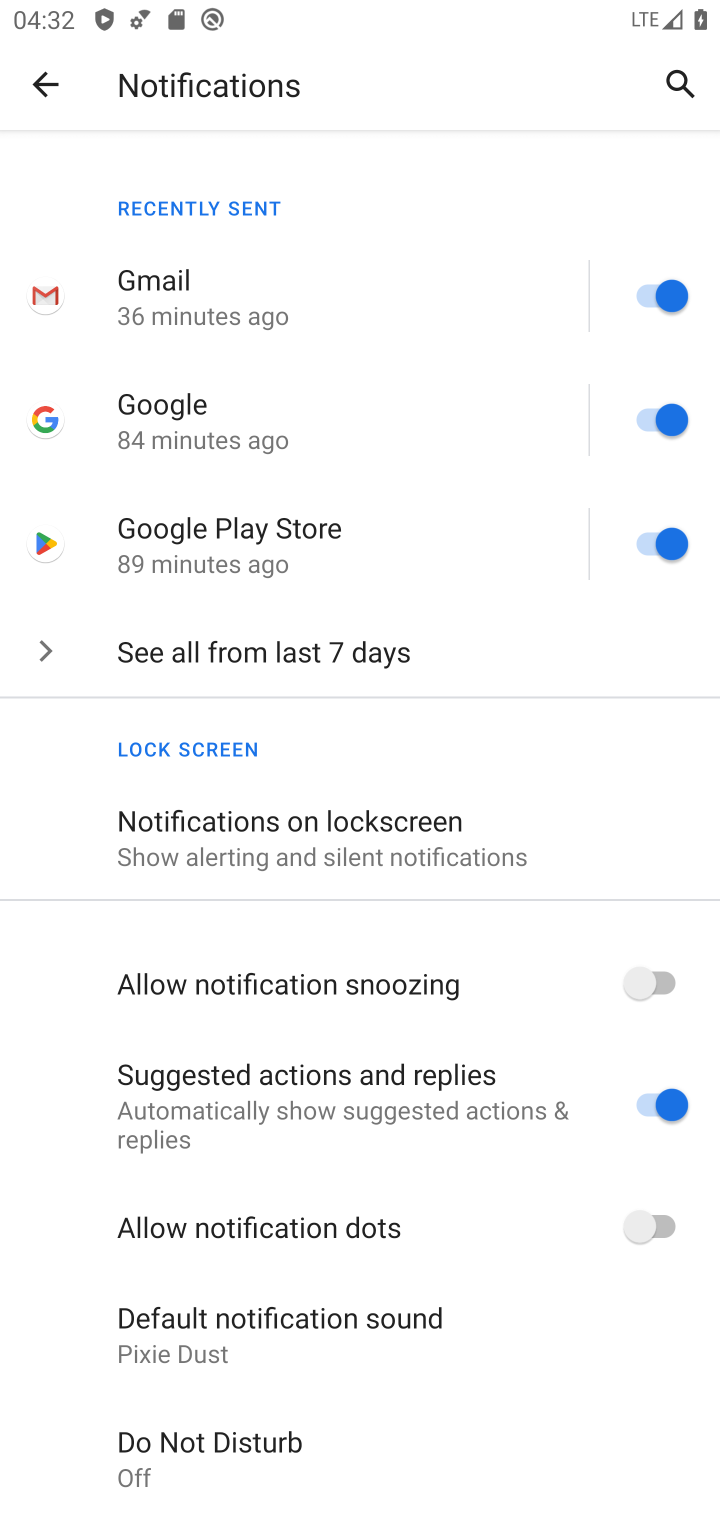
Step 30: task complete